Your task to perform on an android device: turn off notifications settings in the gmail app Image 0: 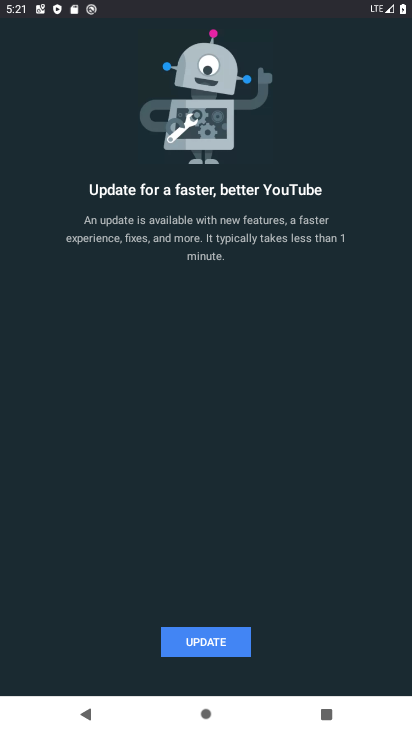
Step 0: drag from (286, 10) to (304, 632)
Your task to perform on an android device: turn off notifications settings in the gmail app Image 1: 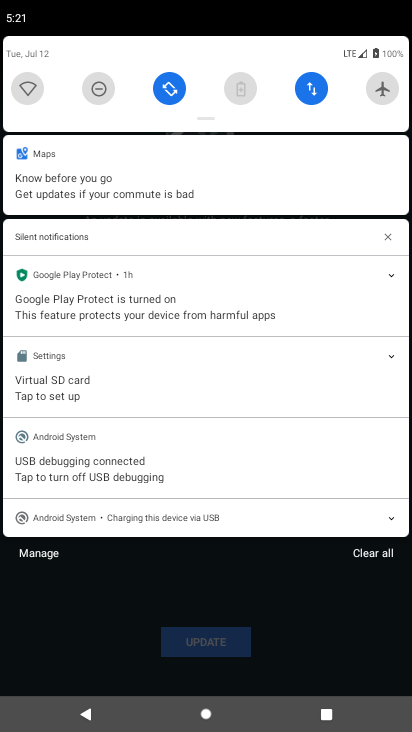
Step 1: drag from (206, 57) to (234, 683)
Your task to perform on an android device: turn off notifications settings in the gmail app Image 2: 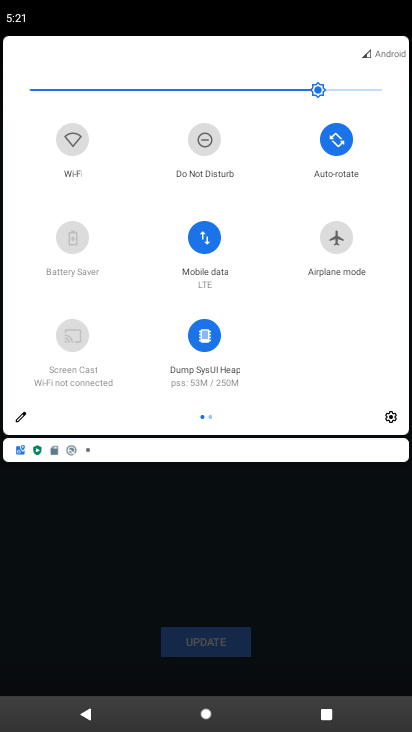
Step 2: click (395, 417)
Your task to perform on an android device: turn off notifications settings in the gmail app Image 3: 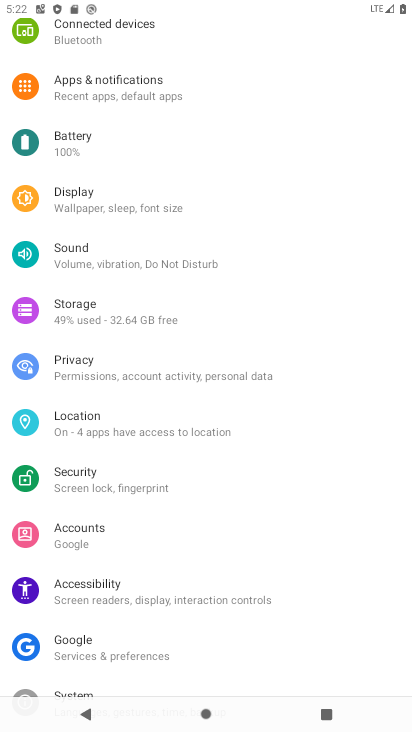
Step 3: click (109, 91)
Your task to perform on an android device: turn off notifications settings in the gmail app Image 4: 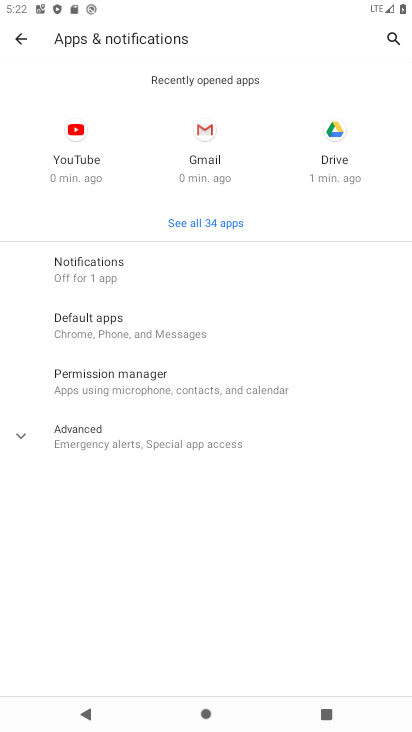
Step 4: click (200, 142)
Your task to perform on an android device: turn off notifications settings in the gmail app Image 5: 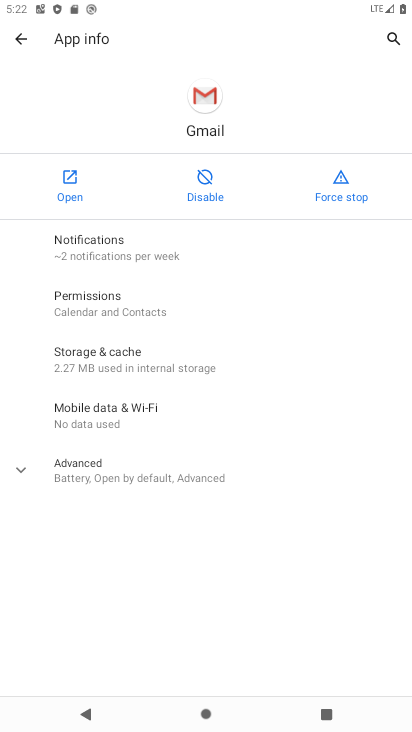
Step 5: click (153, 253)
Your task to perform on an android device: turn off notifications settings in the gmail app Image 6: 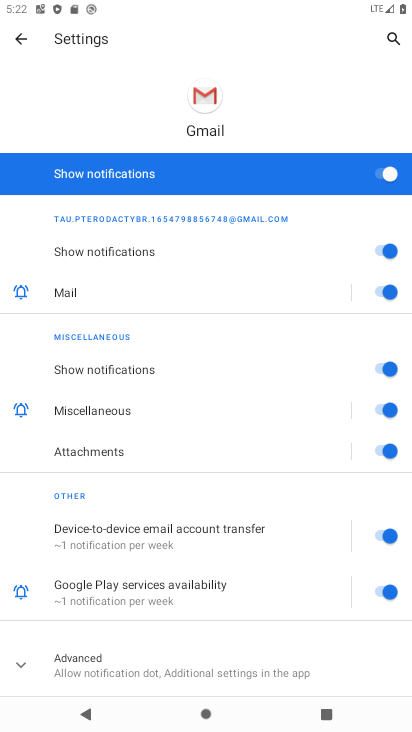
Step 6: click (381, 172)
Your task to perform on an android device: turn off notifications settings in the gmail app Image 7: 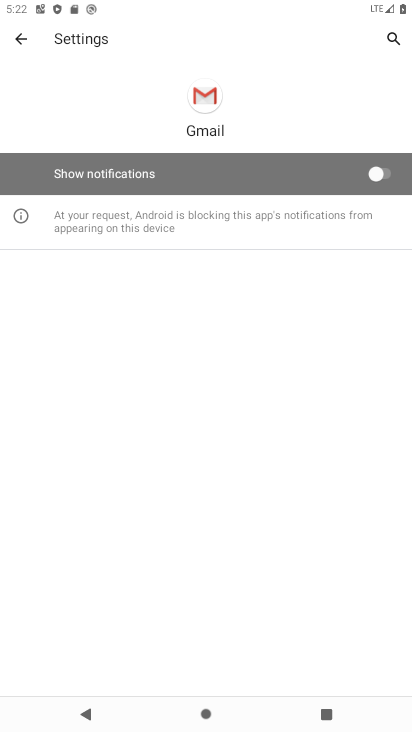
Step 7: task complete